Your task to perform on an android device: install app "Facebook" Image 0: 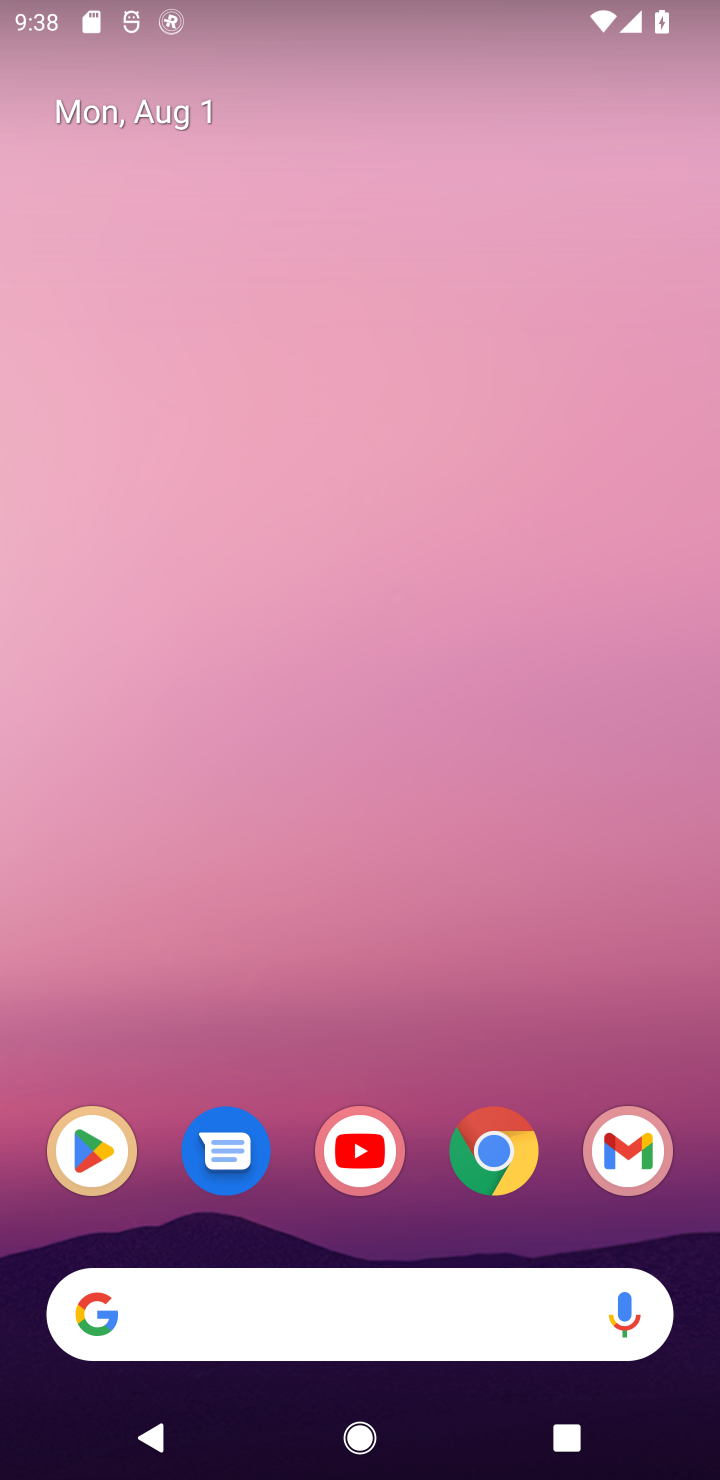
Step 0: click (75, 1133)
Your task to perform on an android device: install app "Facebook" Image 1: 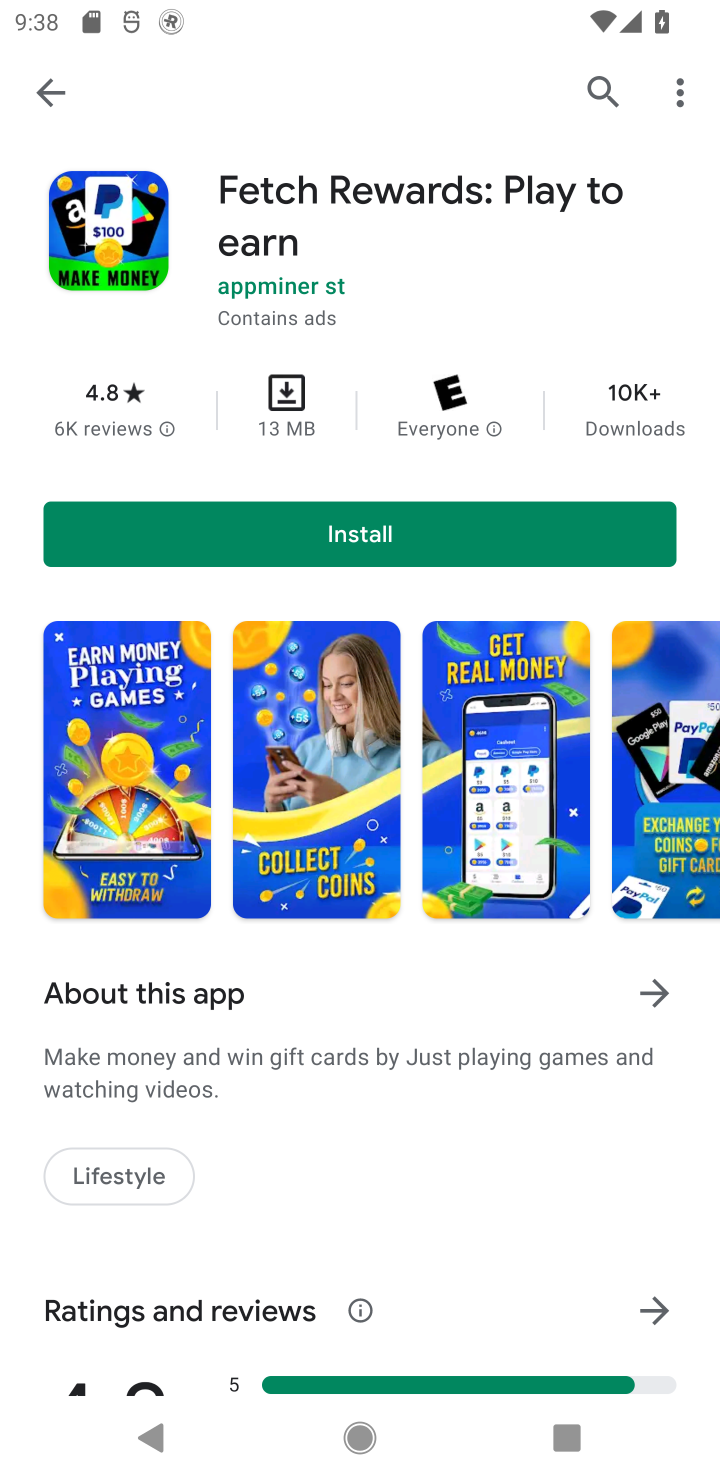
Step 1: click (610, 86)
Your task to perform on an android device: install app "Facebook" Image 2: 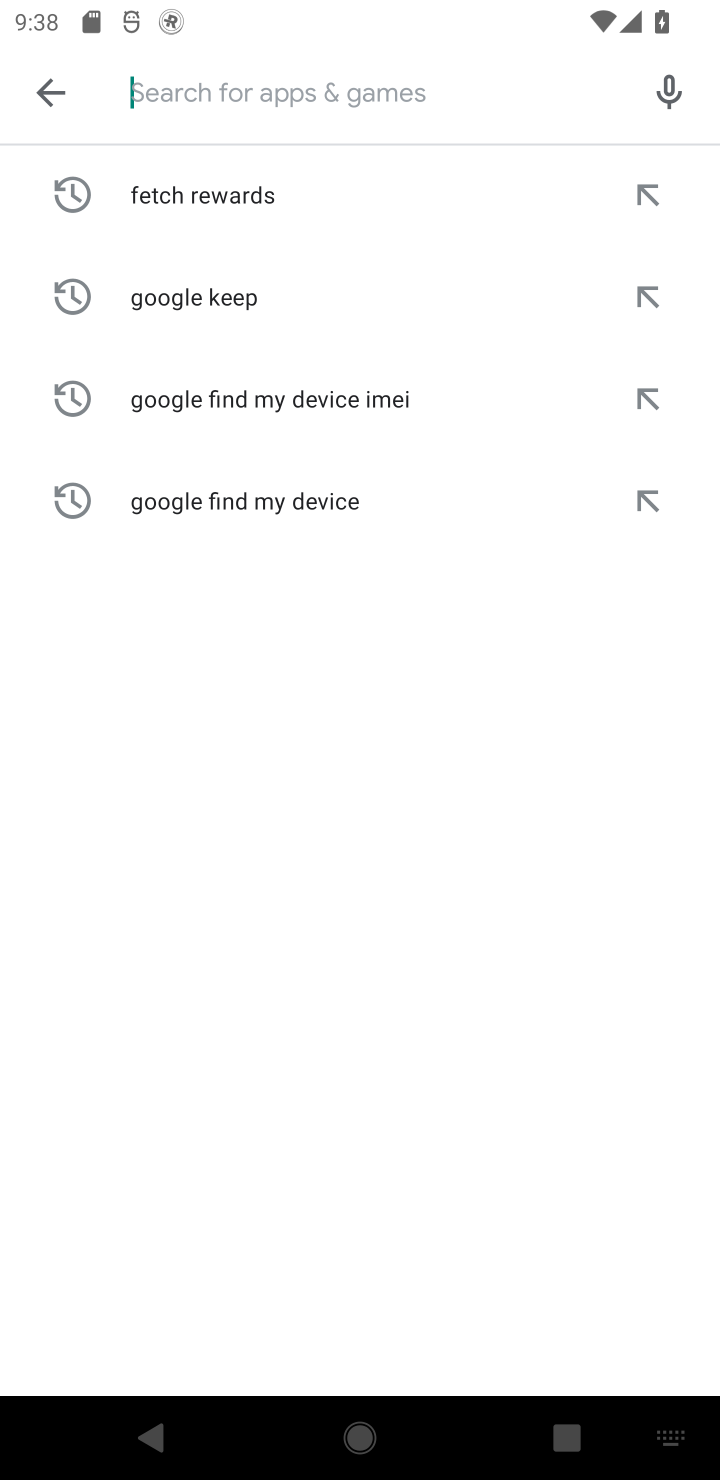
Step 2: type "Facebook"
Your task to perform on an android device: install app "Facebook" Image 3: 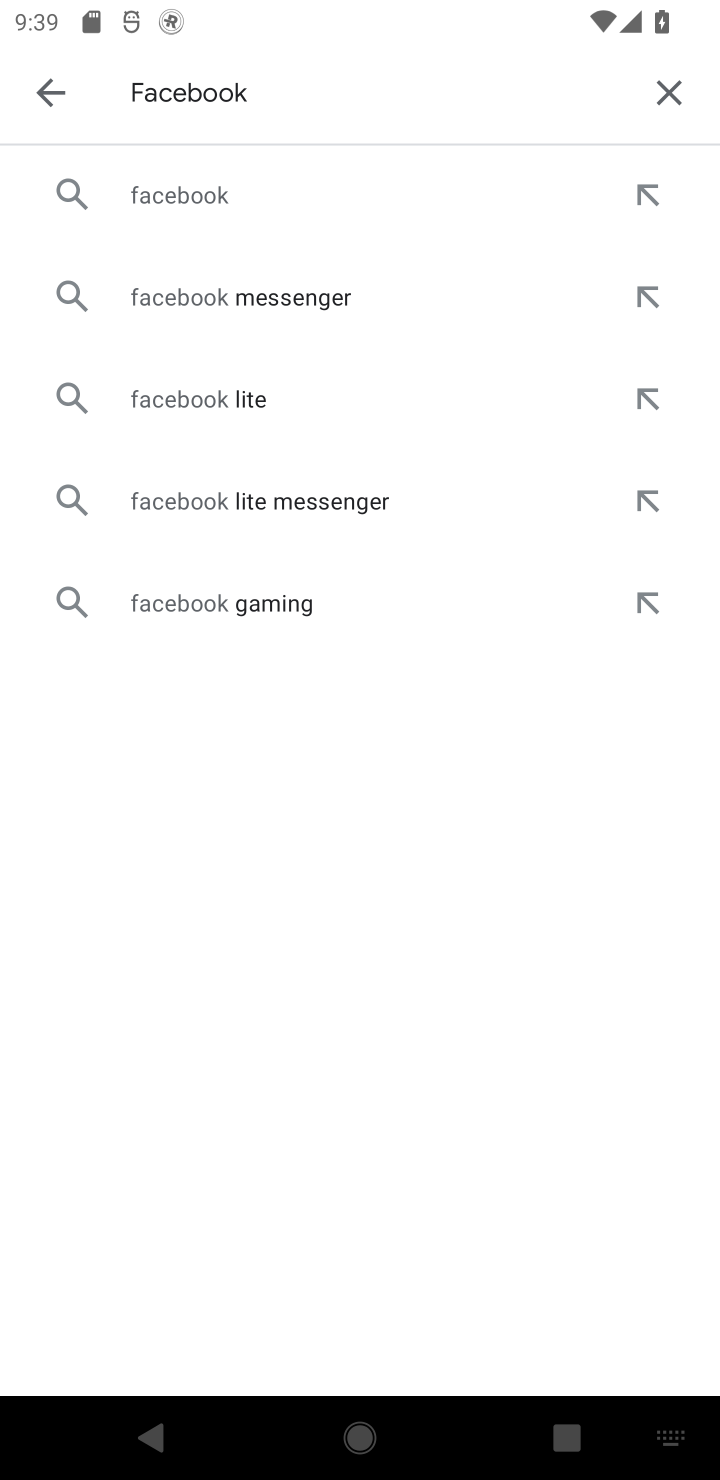
Step 3: click (181, 211)
Your task to perform on an android device: install app "Facebook" Image 4: 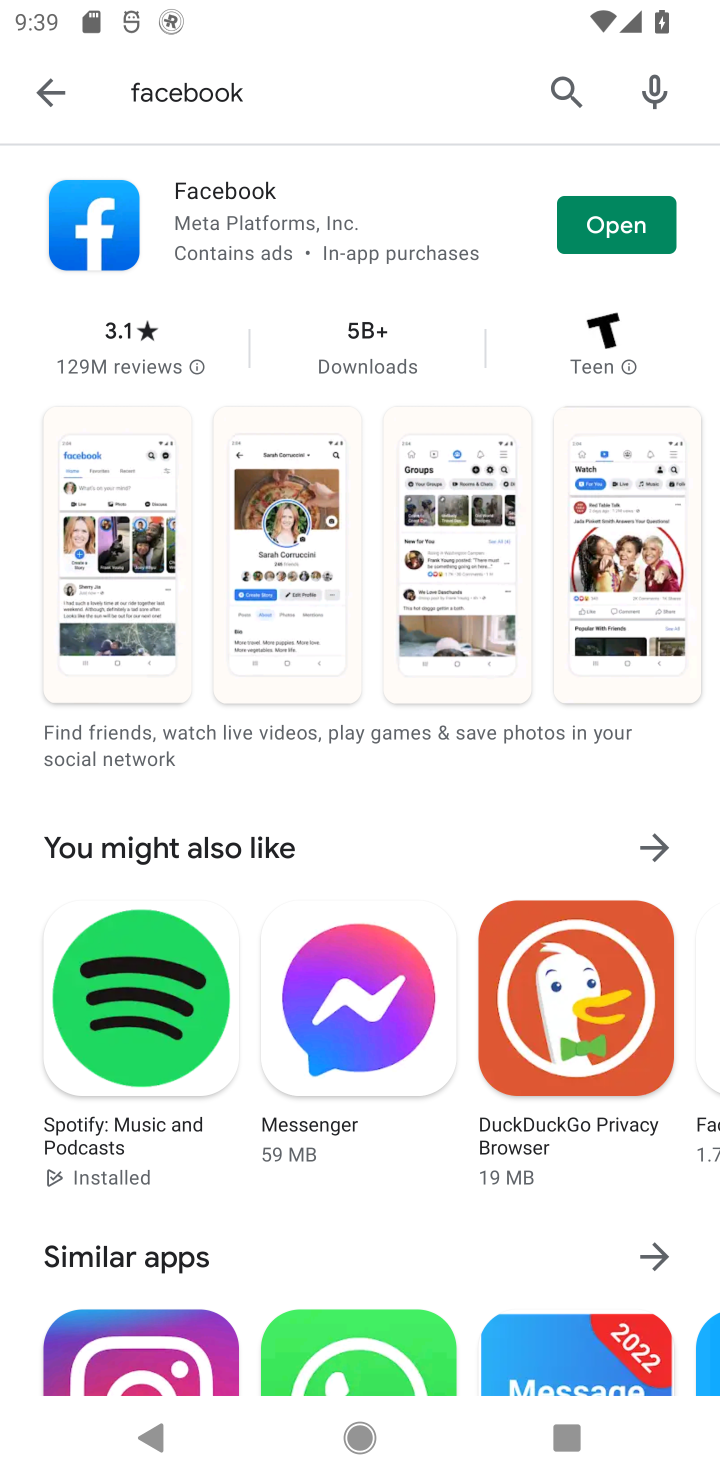
Step 4: task complete